Your task to perform on an android device: Open calendar and show me the second week of next month Image 0: 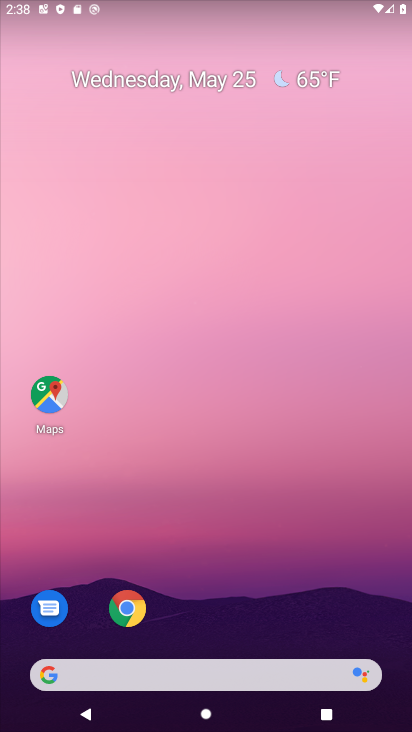
Step 0: drag from (333, 609) to (302, 1)
Your task to perform on an android device: Open calendar and show me the second week of next month Image 1: 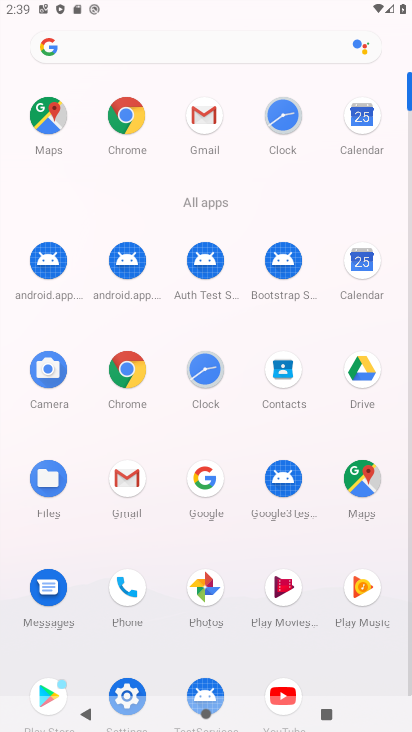
Step 1: click (362, 123)
Your task to perform on an android device: Open calendar and show me the second week of next month Image 2: 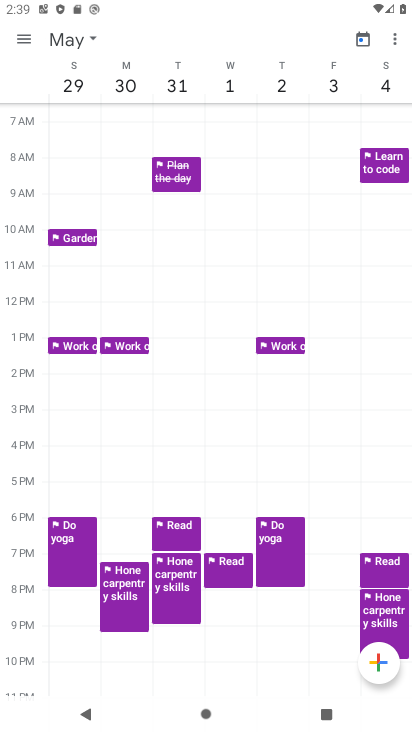
Step 2: task complete